Your task to perform on an android device: Clear the shopping cart on walmart.com. Image 0: 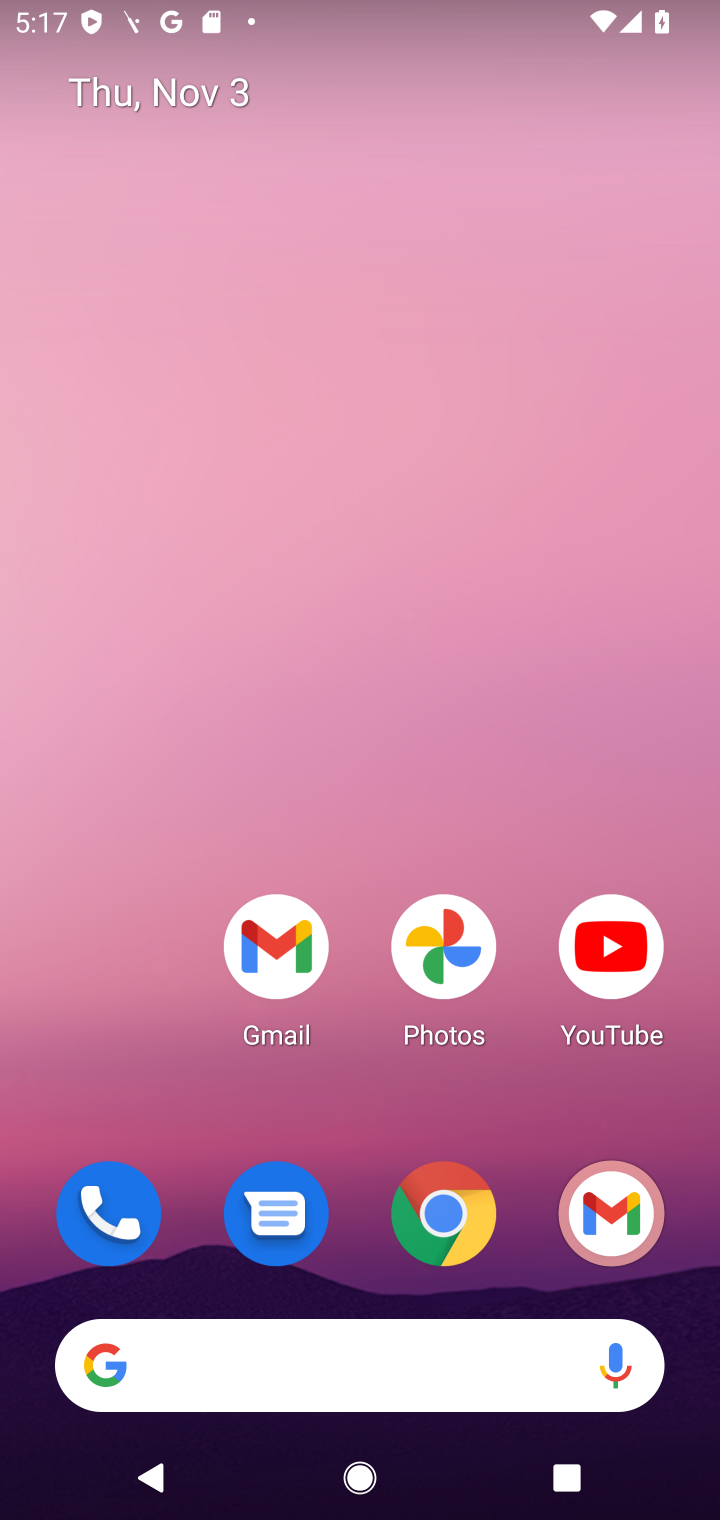
Step 0: click (451, 1236)
Your task to perform on an android device: Clear the shopping cart on walmart.com. Image 1: 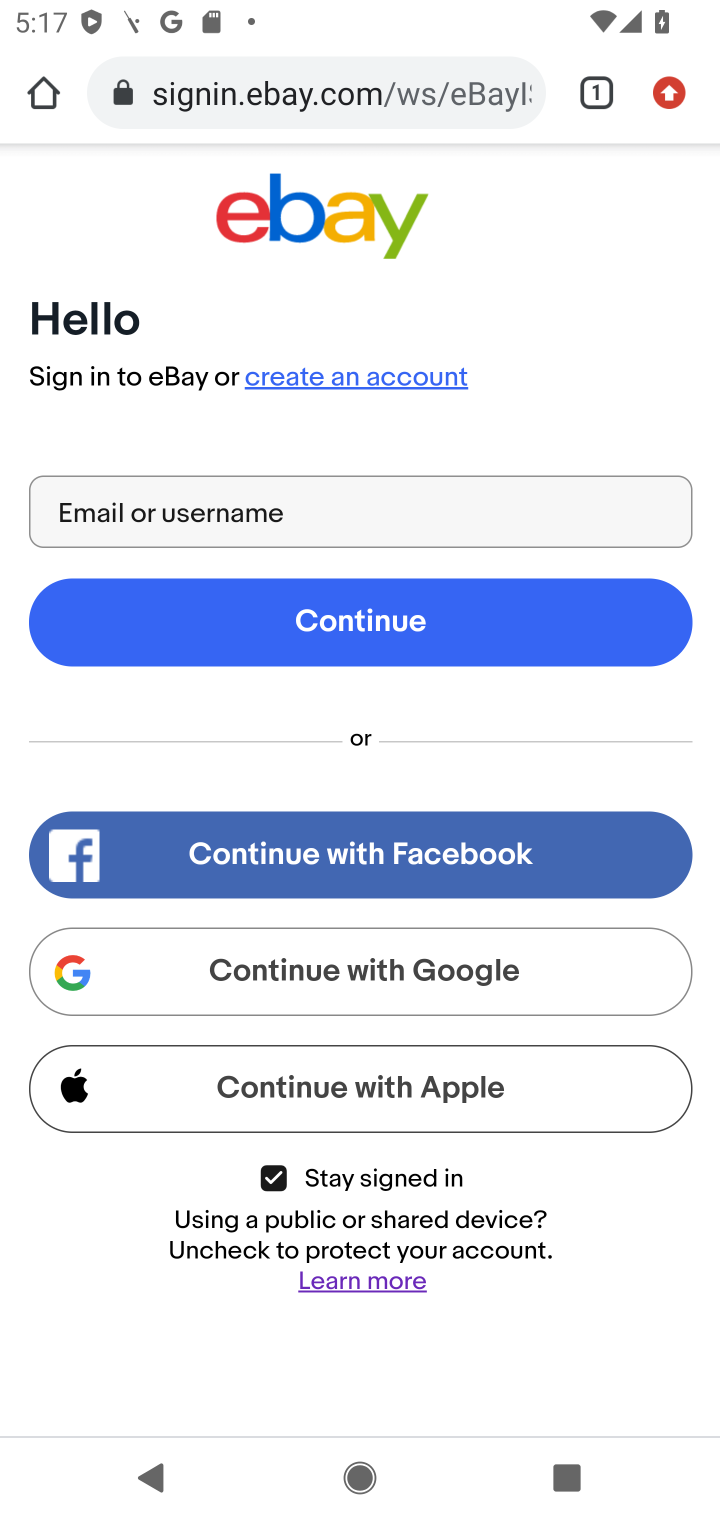
Step 1: click (268, 98)
Your task to perform on an android device: Clear the shopping cart on walmart.com. Image 2: 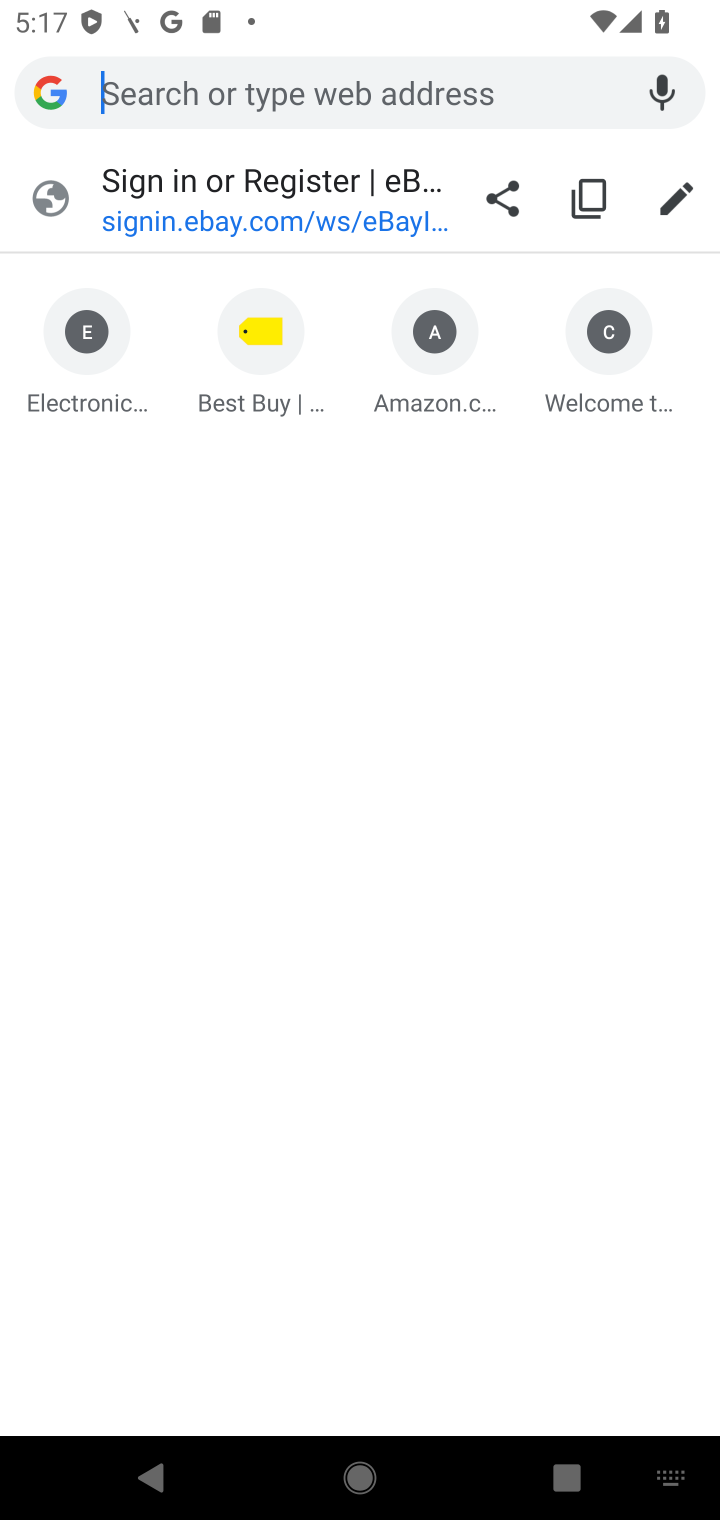
Step 2: type "walmart.com"
Your task to perform on an android device: Clear the shopping cart on walmart.com. Image 3: 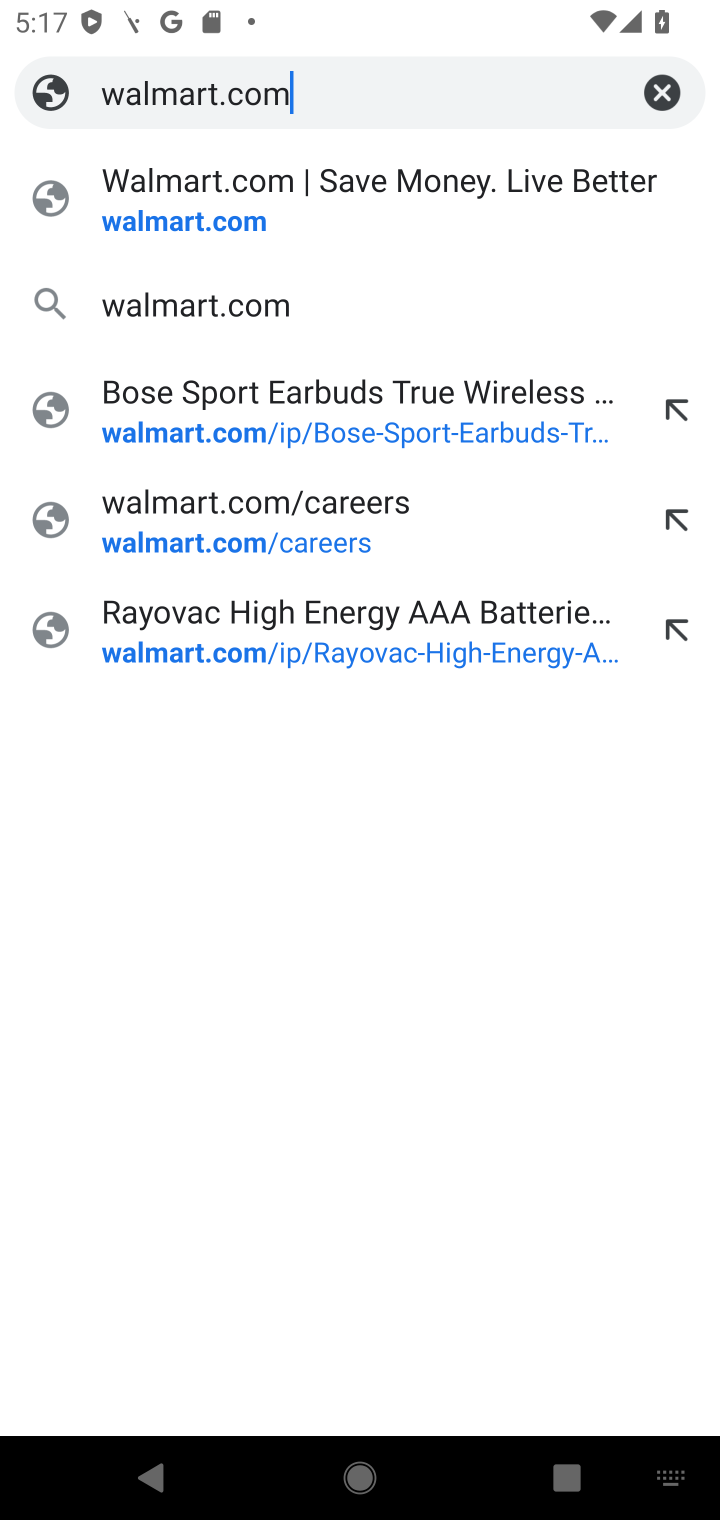
Step 3: click (207, 233)
Your task to perform on an android device: Clear the shopping cart on walmart.com. Image 4: 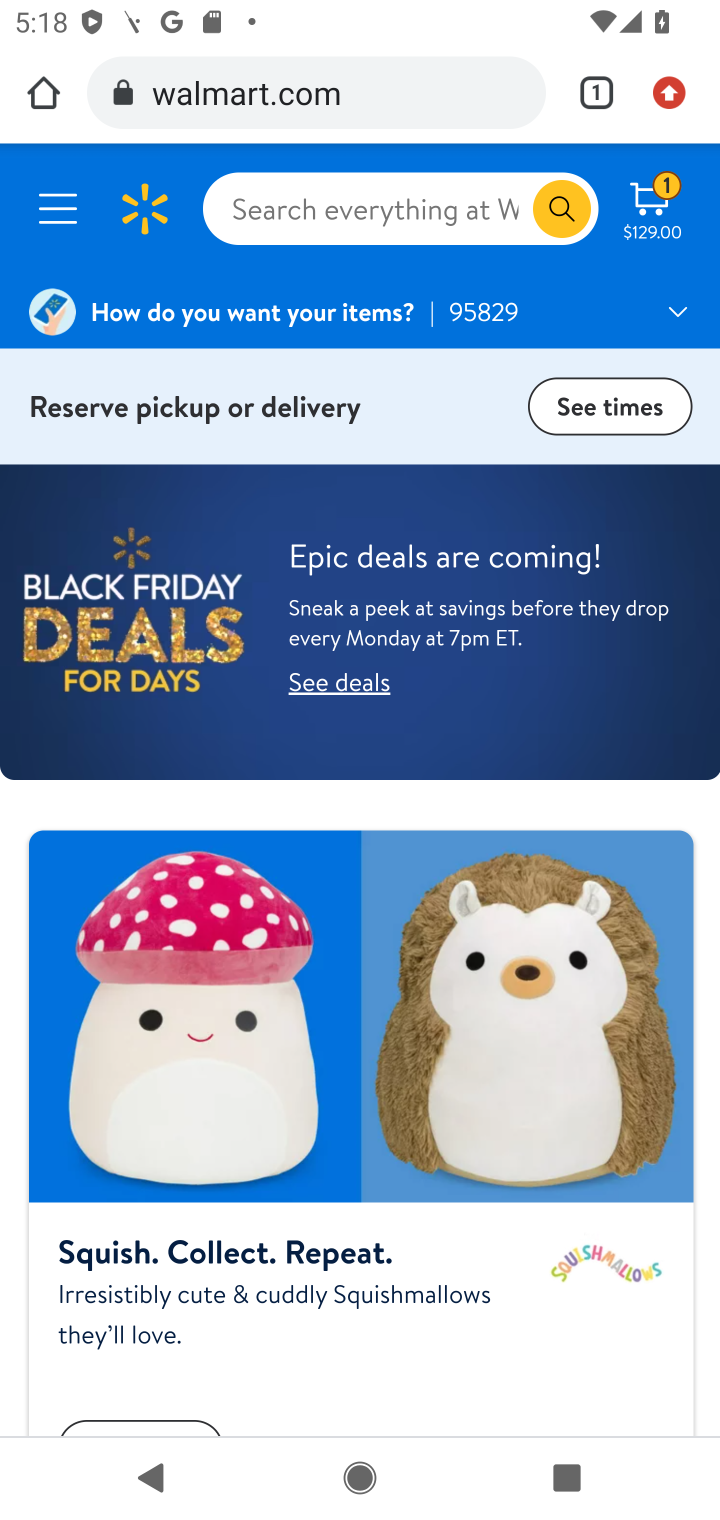
Step 4: click (645, 217)
Your task to perform on an android device: Clear the shopping cart on walmart.com. Image 5: 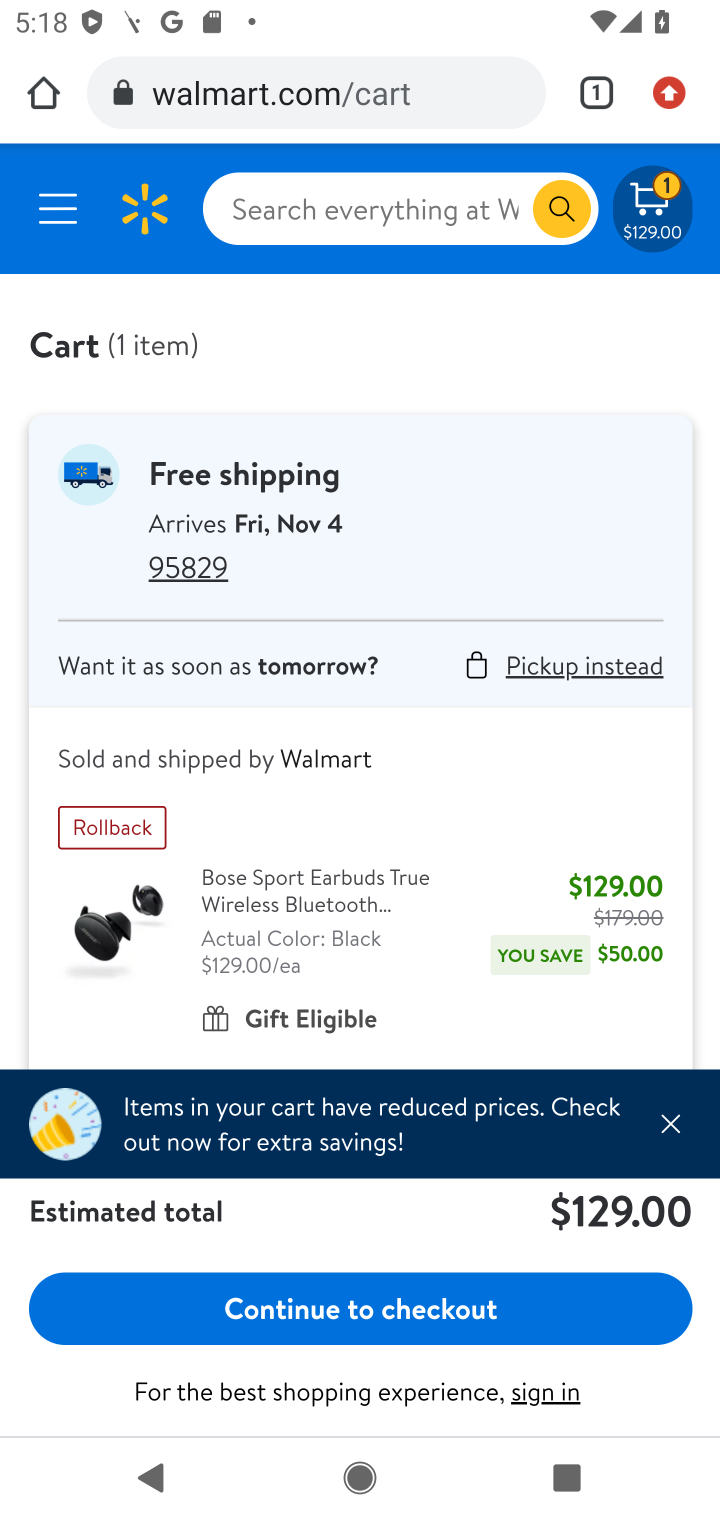
Step 5: drag from (442, 955) to (448, 659)
Your task to perform on an android device: Clear the shopping cart on walmart.com. Image 6: 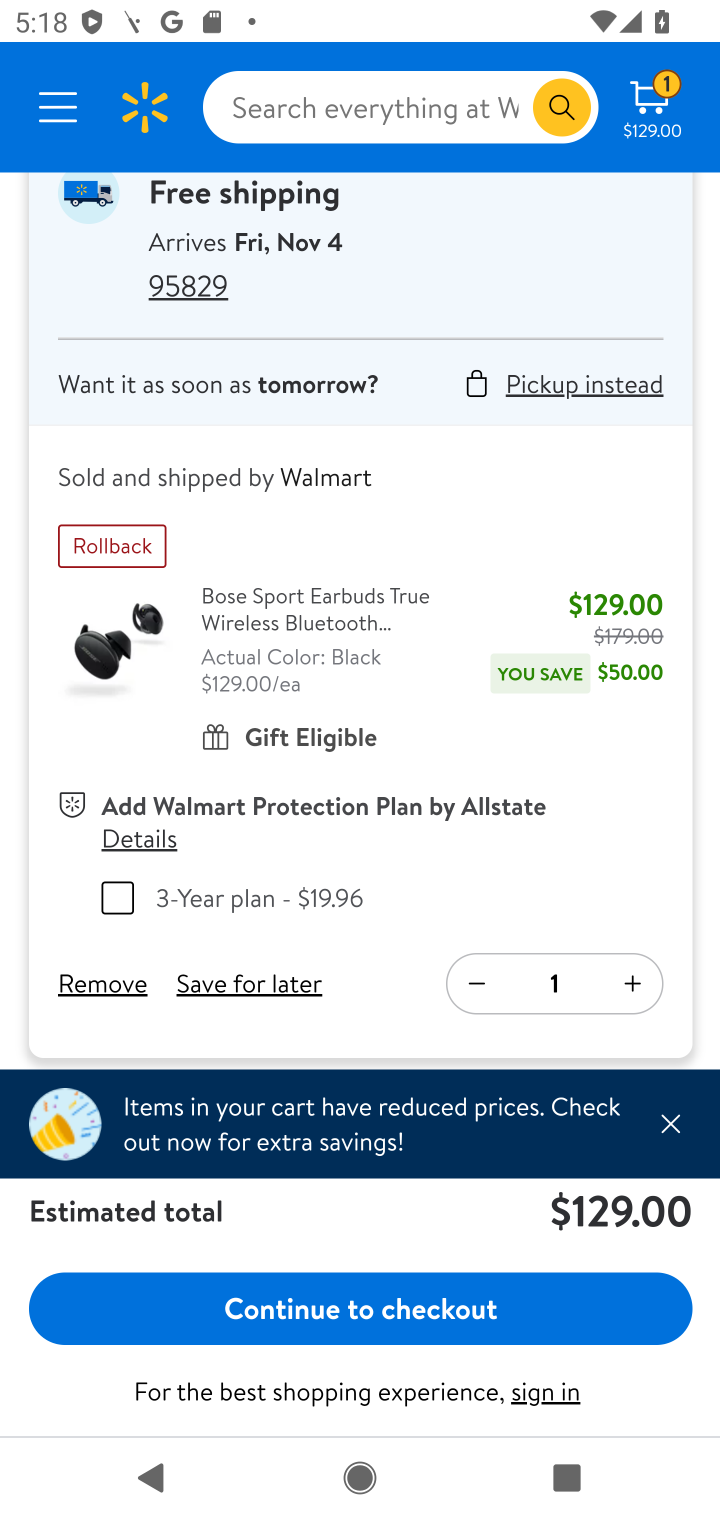
Step 6: click (668, 1129)
Your task to perform on an android device: Clear the shopping cart on walmart.com. Image 7: 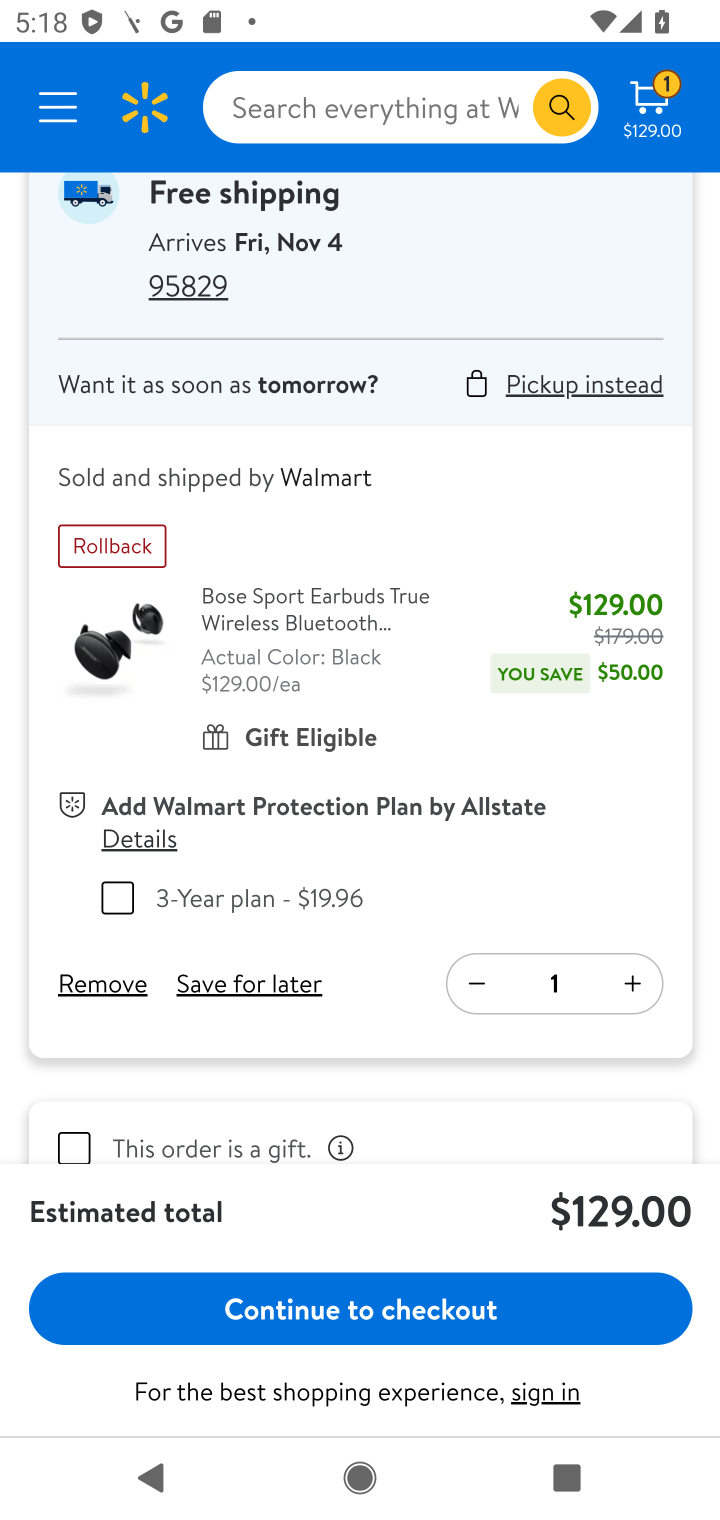
Step 7: click (104, 992)
Your task to perform on an android device: Clear the shopping cart on walmart.com. Image 8: 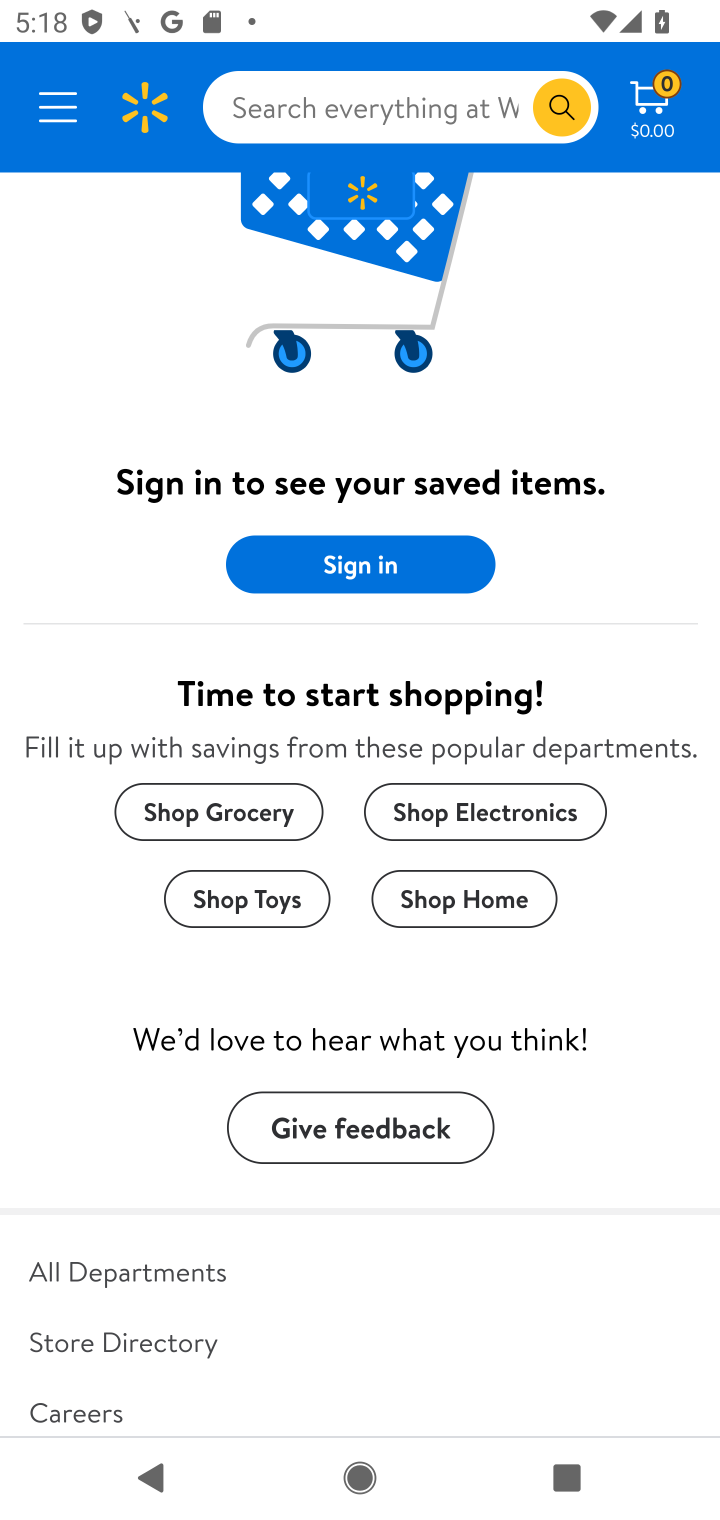
Step 8: task complete